Your task to perform on an android device: find photos in the google photos app Image 0: 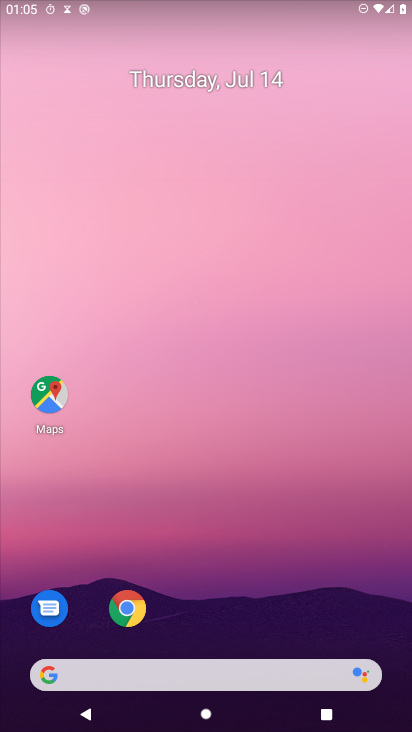
Step 0: press home button
Your task to perform on an android device: find photos in the google photos app Image 1: 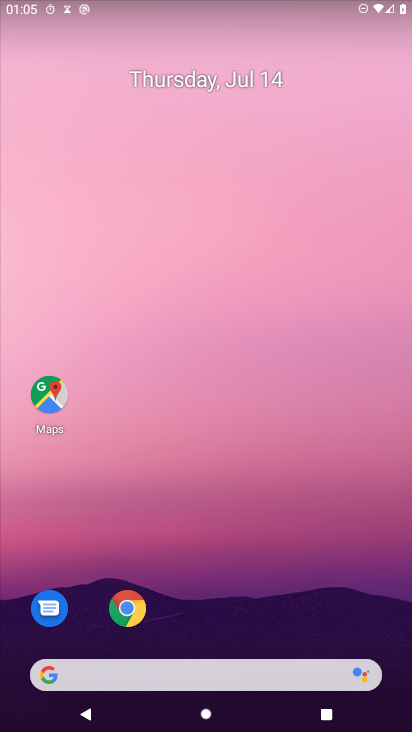
Step 1: drag from (286, 587) to (329, 5)
Your task to perform on an android device: find photos in the google photos app Image 2: 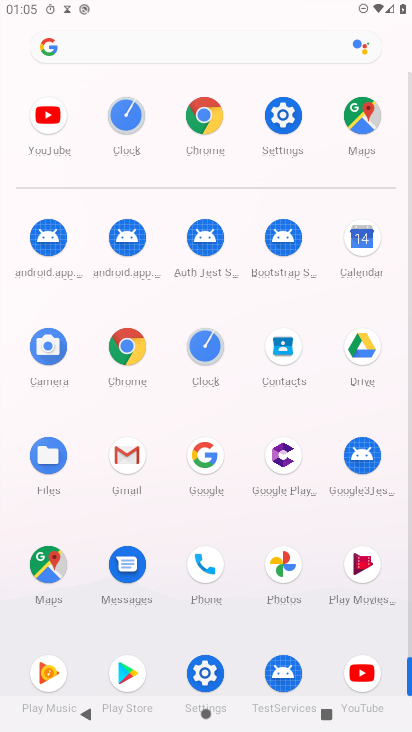
Step 2: click (277, 566)
Your task to perform on an android device: find photos in the google photos app Image 3: 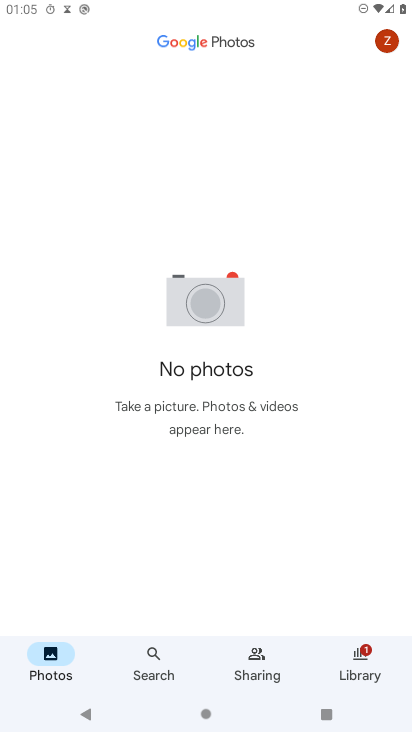
Step 3: click (142, 639)
Your task to perform on an android device: find photos in the google photos app Image 4: 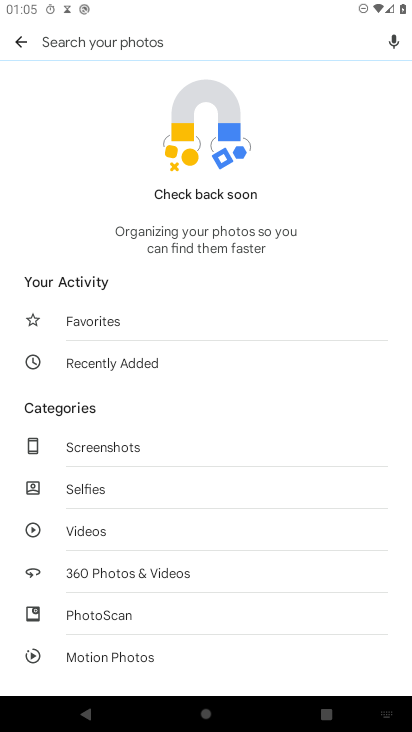
Step 4: task complete